Your task to perform on an android device: What's on my calendar today? Image 0: 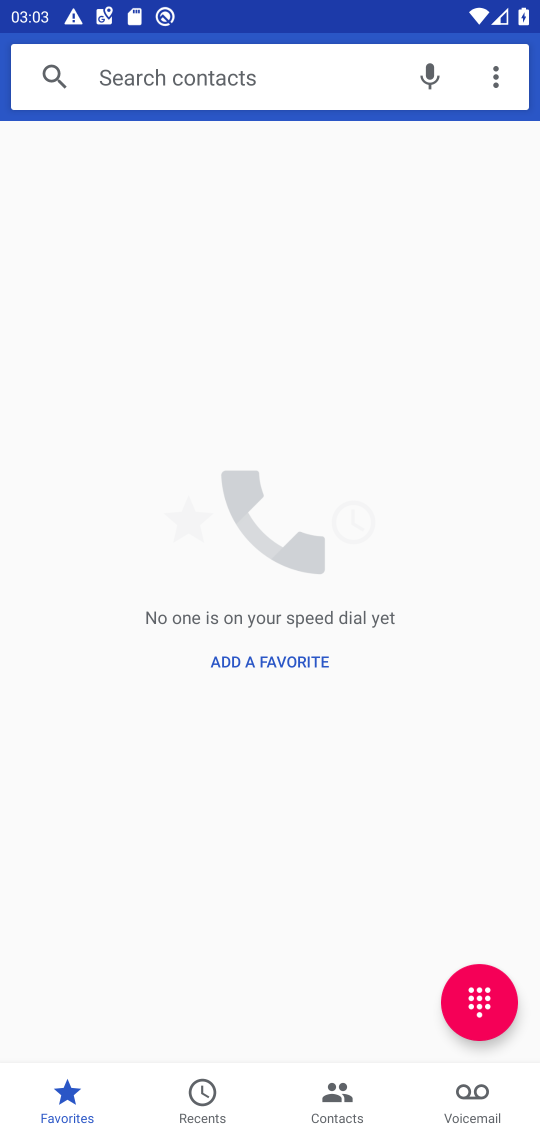
Step 0: press home button
Your task to perform on an android device: What's on my calendar today? Image 1: 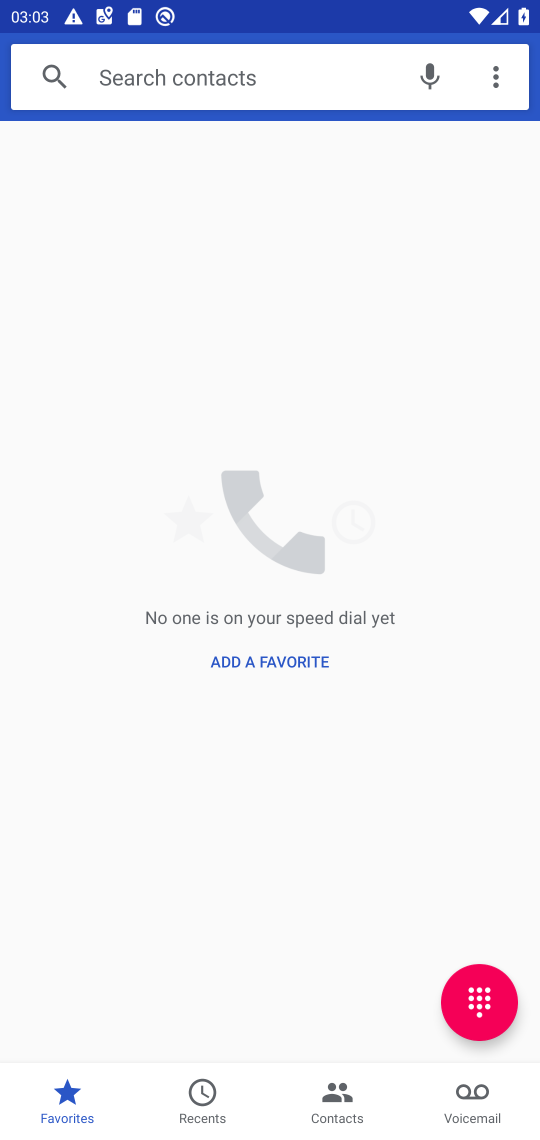
Step 1: press home button
Your task to perform on an android device: What's on my calendar today? Image 2: 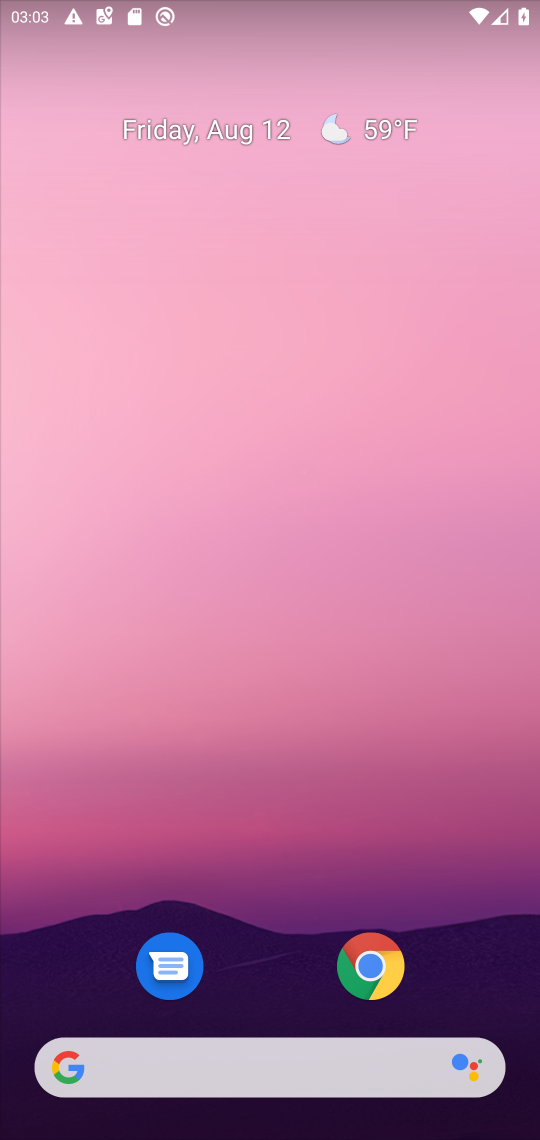
Step 2: drag from (280, 653) to (318, 129)
Your task to perform on an android device: What's on my calendar today? Image 3: 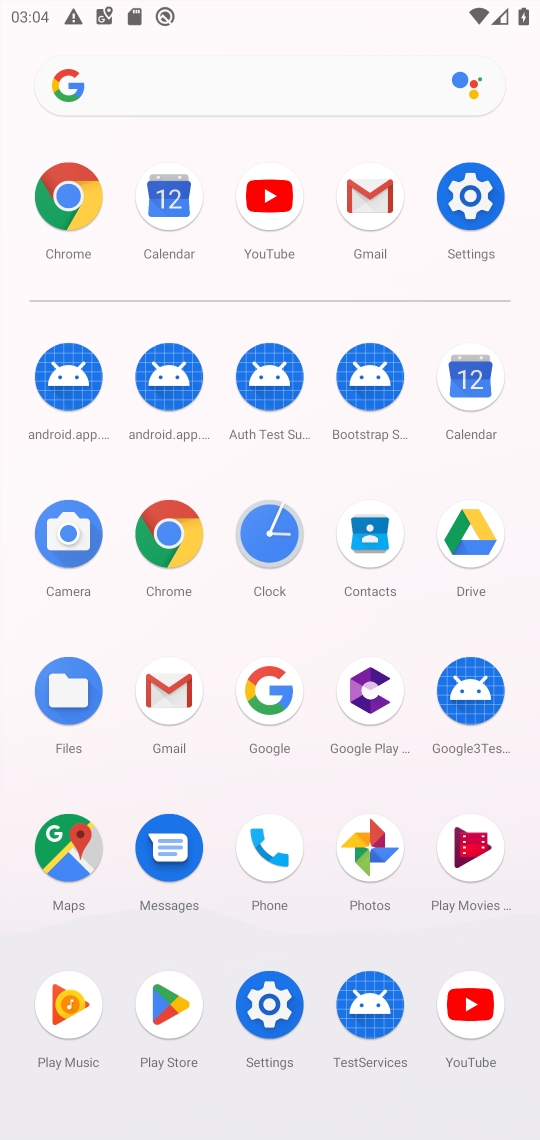
Step 3: click (483, 368)
Your task to perform on an android device: What's on my calendar today? Image 4: 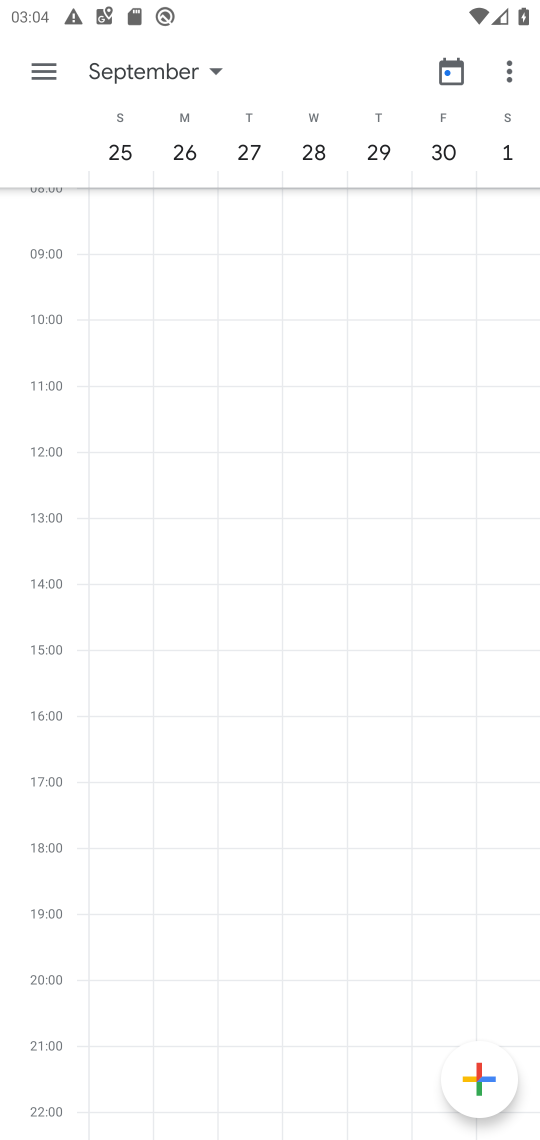
Step 4: click (139, 76)
Your task to perform on an android device: What's on my calendar today? Image 5: 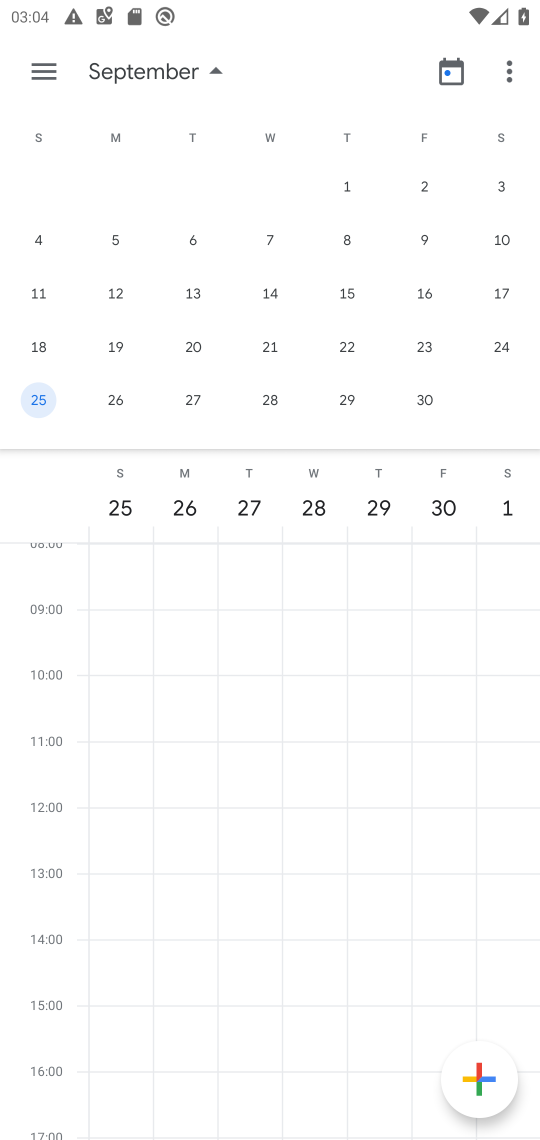
Step 5: drag from (73, 284) to (537, 279)
Your task to perform on an android device: What's on my calendar today? Image 6: 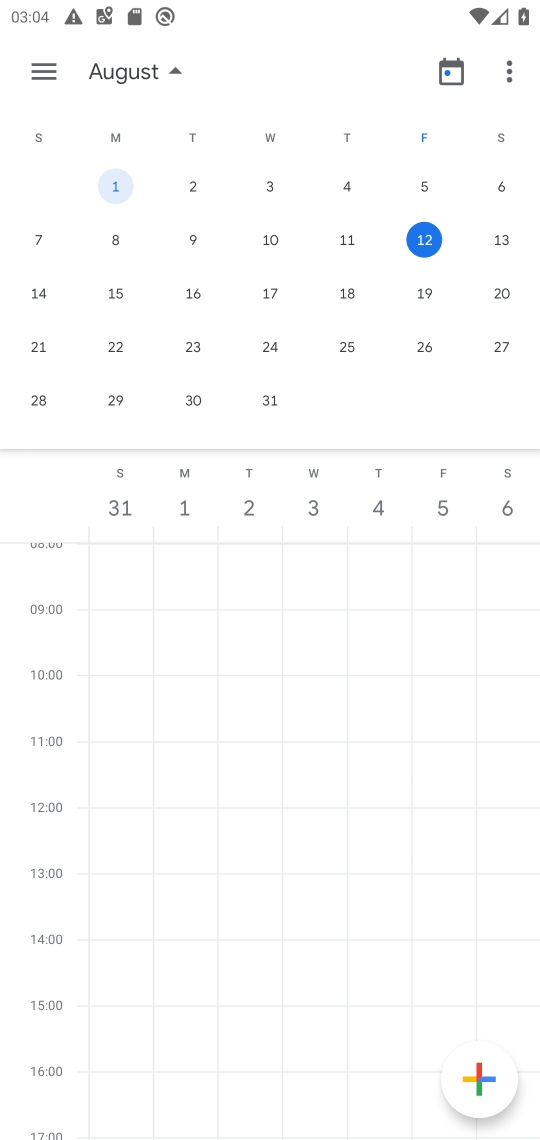
Step 6: click (412, 235)
Your task to perform on an android device: What's on my calendar today? Image 7: 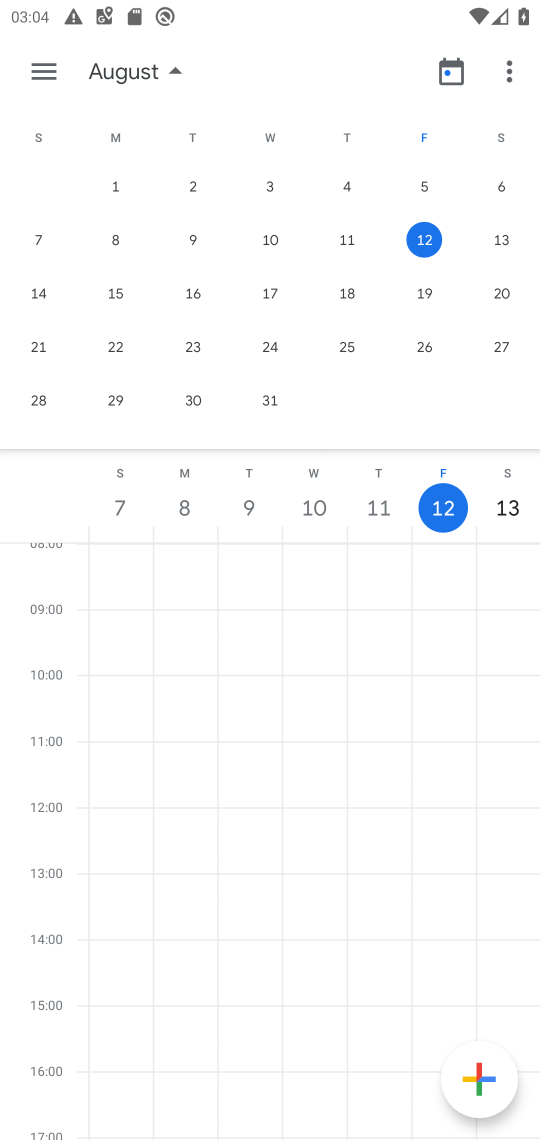
Step 7: drag from (429, 639) to (449, 403)
Your task to perform on an android device: What's on my calendar today? Image 8: 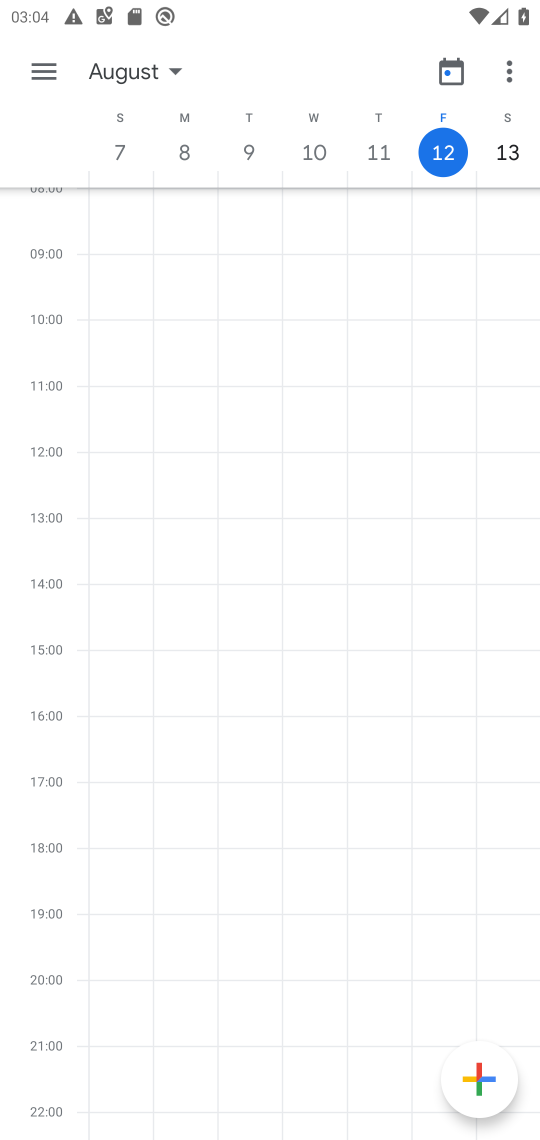
Step 8: click (441, 257)
Your task to perform on an android device: What's on my calendar today? Image 9: 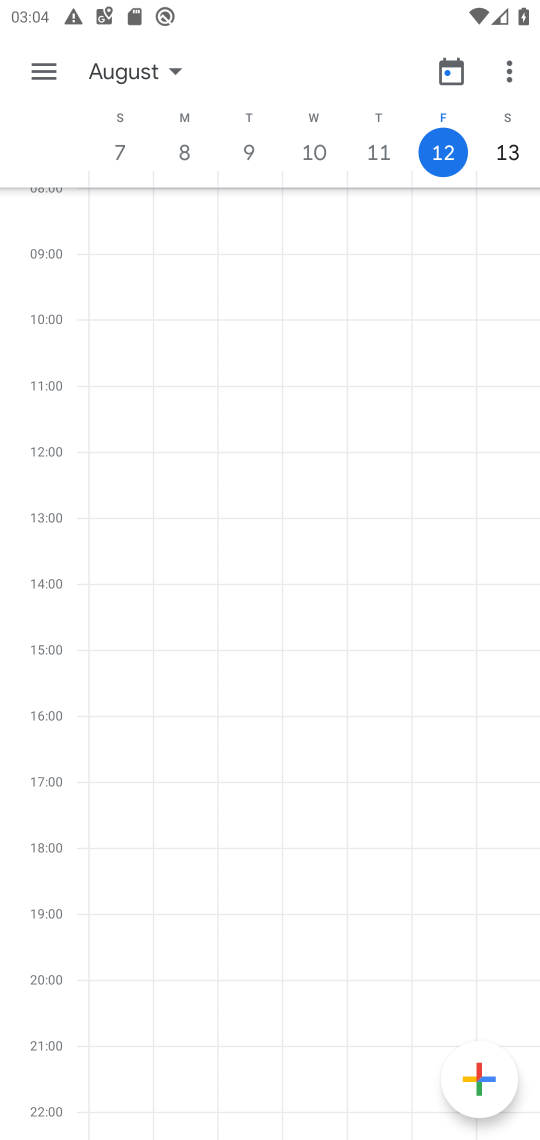
Step 9: click (439, 162)
Your task to perform on an android device: What's on my calendar today? Image 10: 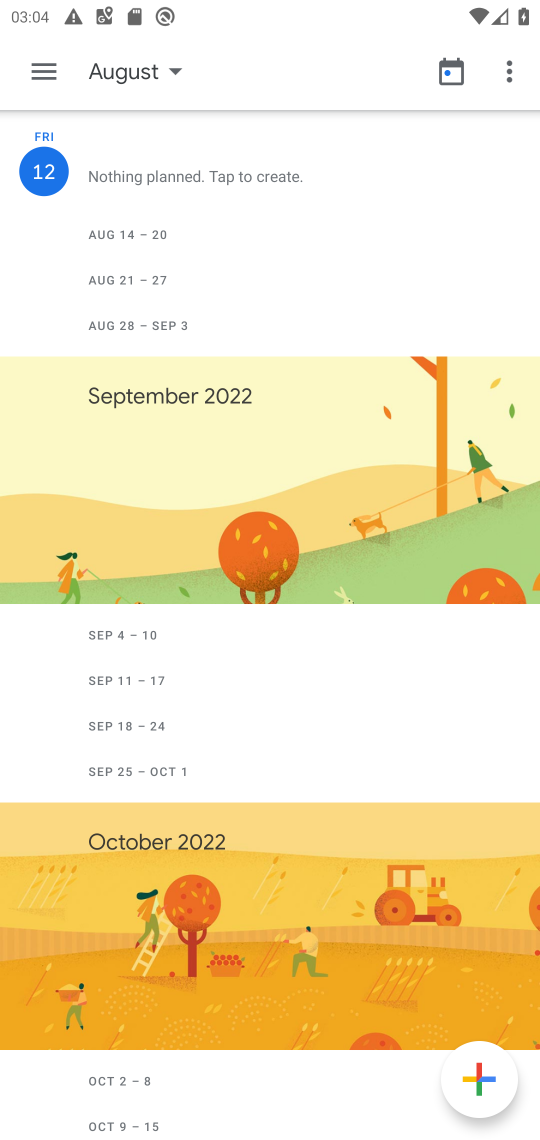
Step 10: task complete